Your task to perform on an android device: Search for razer blackwidow on ebay, select the first entry, and add it to the cart. Image 0: 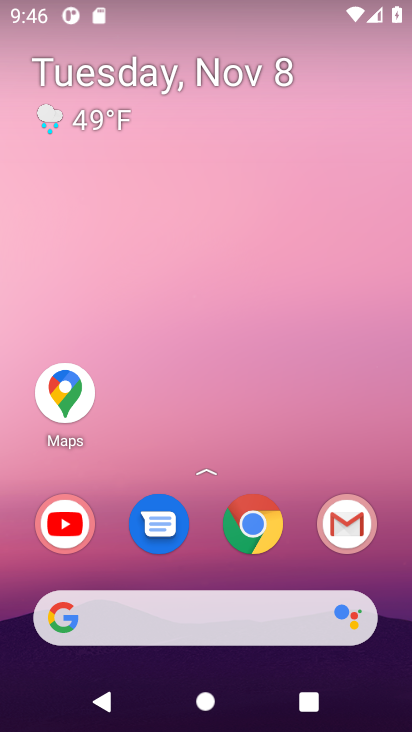
Step 0: click (248, 537)
Your task to perform on an android device: Search for razer blackwidow on ebay, select the first entry, and add it to the cart. Image 1: 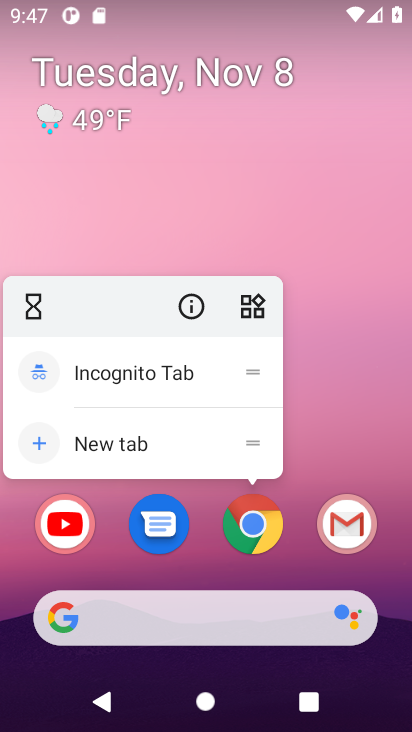
Step 1: click (247, 537)
Your task to perform on an android device: Search for razer blackwidow on ebay, select the first entry, and add it to the cart. Image 2: 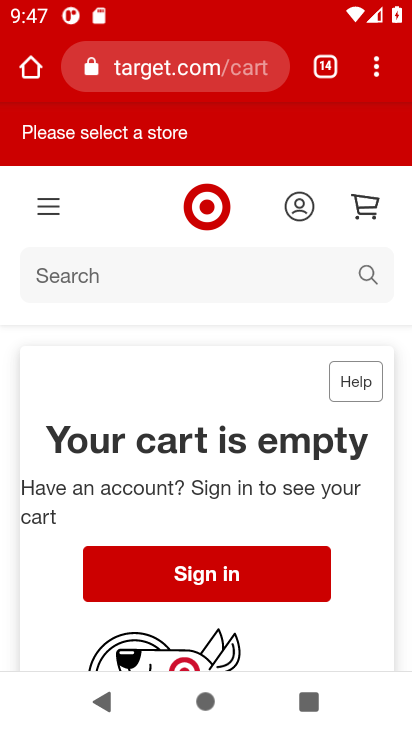
Step 2: click (174, 70)
Your task to perform on an android device: Search for razer blackwidow on ebay, select the first entry, and add it to the cart. Image 3: 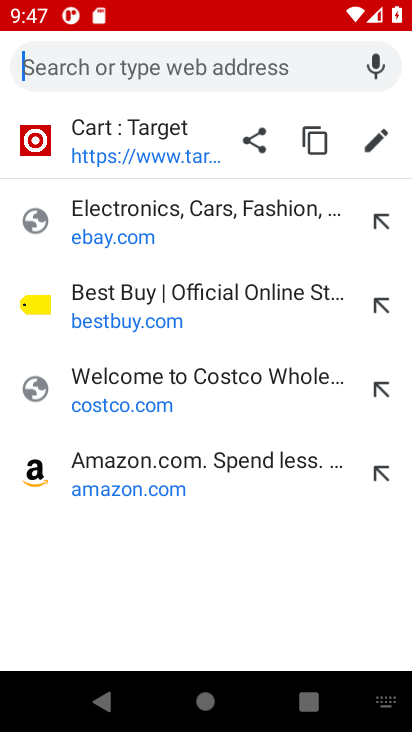
Step 3: click (131, 227)
Your task to perform on an android device: Search for razer blackwidow on ebay, select the first entry, and add it to the cart. Image 4: 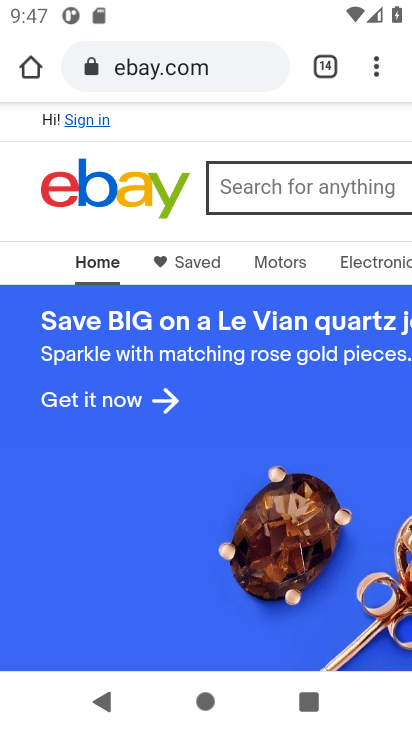
Step 4: click (276, 188)
Your task to perform on an android device: Search for razer blackwidow on ebay, select the first entry, and add it to the cart. Image 5: 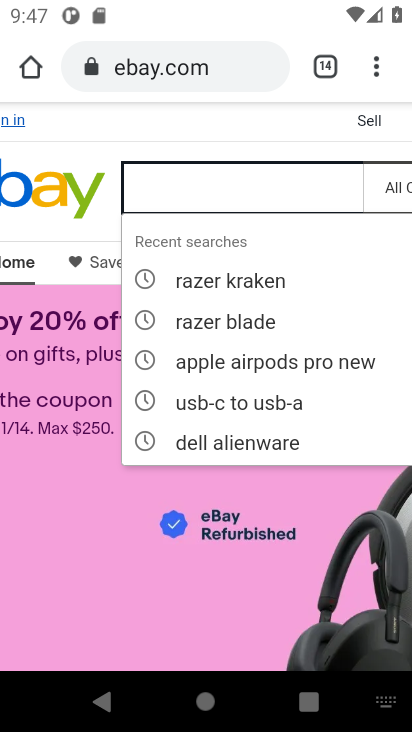
Step 5: type "razer blackwidow"
Your task to perform on an android device: Search for razer blackwidow on ebay, select the first entry, and add it to the cart. Image 6: 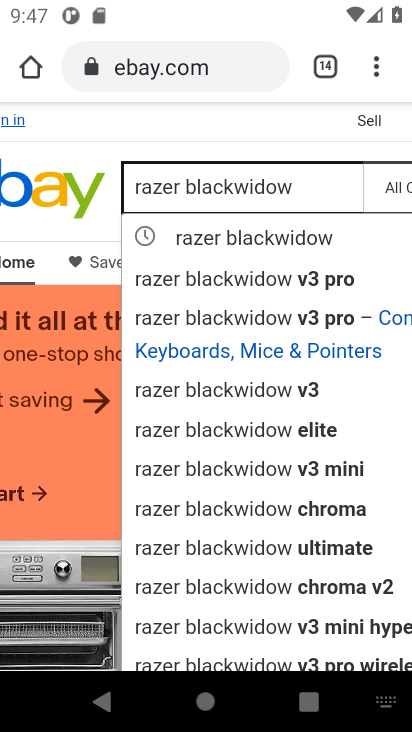
Step 6: click (291, 239)
Your task to perform on an android device: Search for razer blackwidow on ebay, select the first entry, and add it to the cart. Image 7: 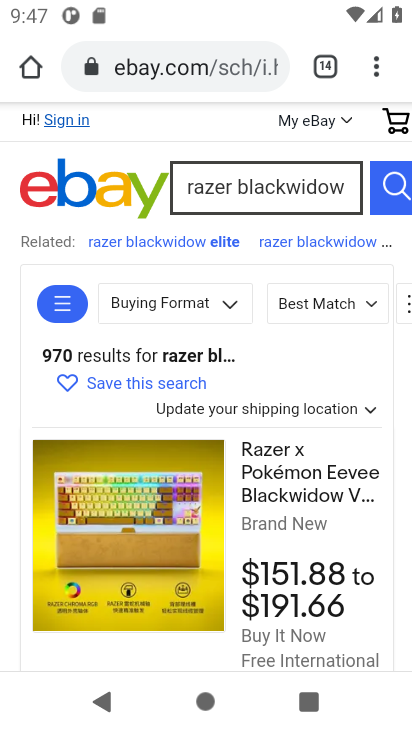
Step 7: click (167, 582)
Your task to perform on an android device: Search for razer blackwidow on ebay, select the first entry, and add it to the cart. Image 8: 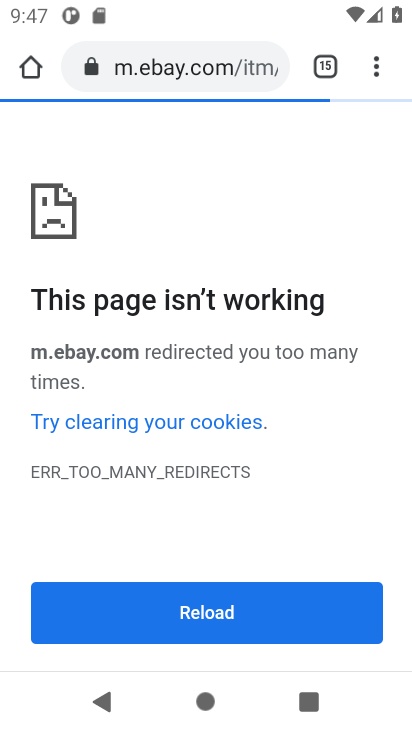
Step 8: task complete